Your task to perform on an android device: Go to calendar. Show me events next week Image 0: 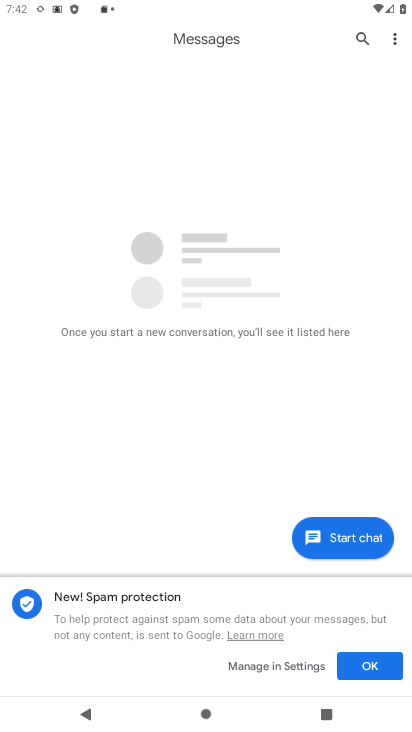
Step 0: press home button
Your task to perform on an android device: Go to calendar. Show me events next week Image 1: 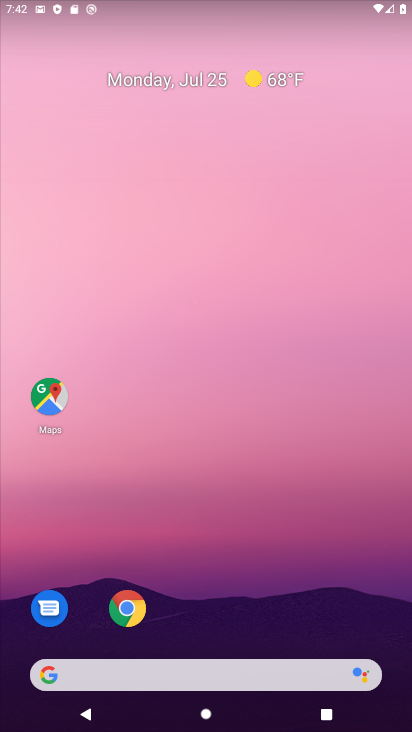
Step 1: drag from (219, 645) to (213, 1)
Your task to perform on an android device: Go to calendar. Show me events next week Image 2: 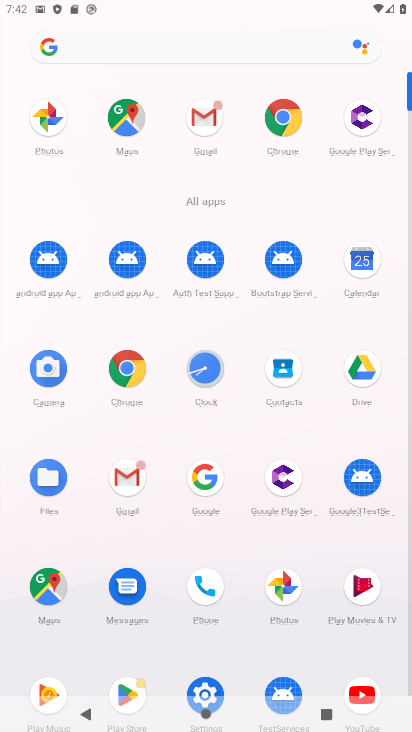
Step 2: click (353, 262)
Your task to perform on an android device: Go to calendar. Show me events next week Image 3: 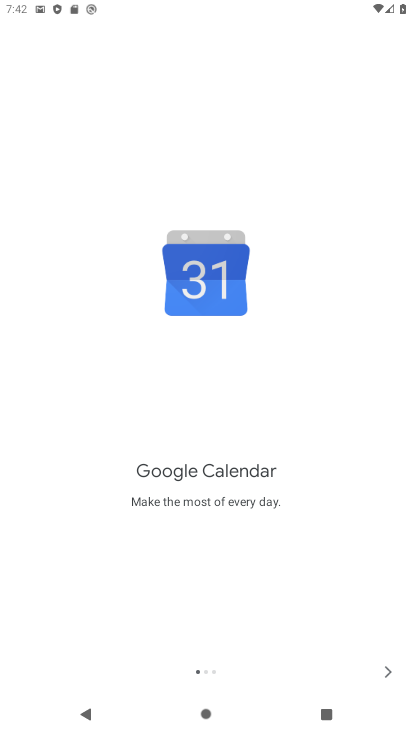
Step 3: click (393, 681)
Your task to perform on an android device: Go to calendar. Show me events next week Image 4: 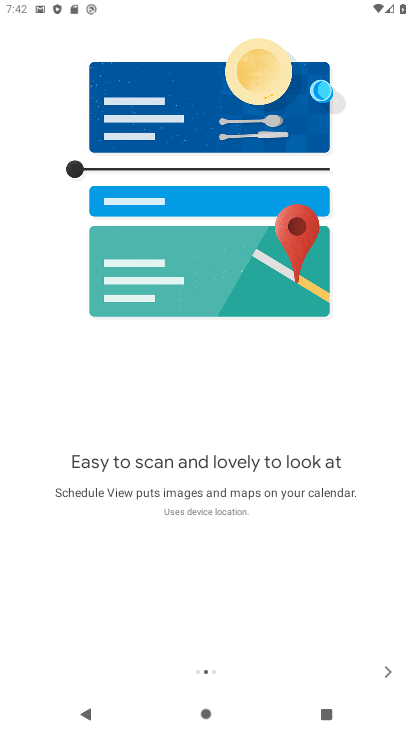
Step 4: click (393, 681)
Your task to perform on an android device: Go to calendar. Show me events next week Image 5: 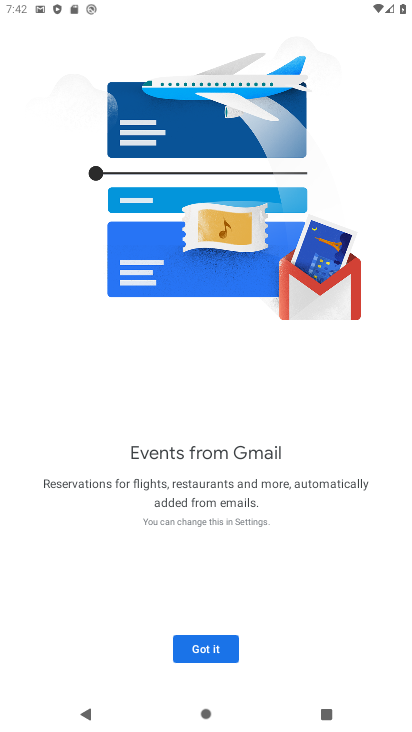
Step 5: click (201, 654)
Your task to perform on an android device: Go to calendar. Show me events next week Image 6: 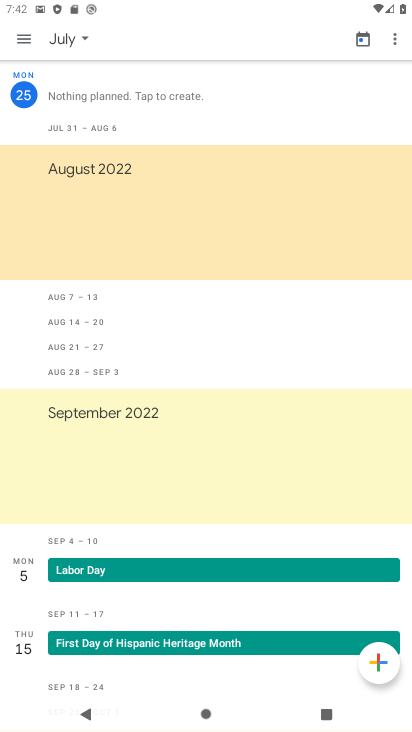
Step 6: click (18, 46)
Your task to perform on an android device: Go to calendar. Show me events next week Image 7: 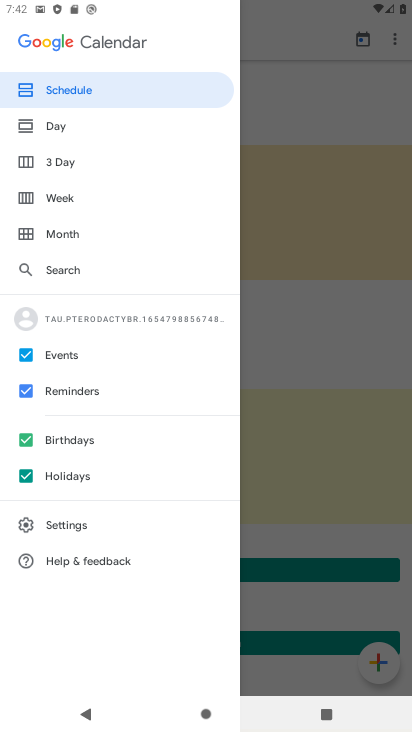
Step 7: click (42, 194)
Your task to perform on an android device: Go to calendar. Show me events next week Image 8: 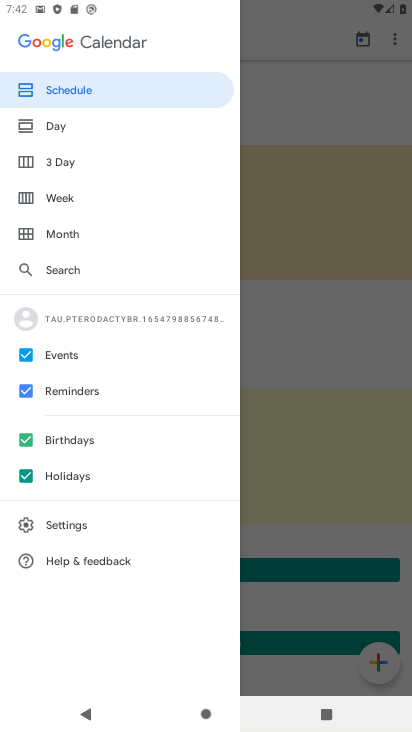
Step 8: click (25, 196)
Your task to perform on an android device: Go to calendar. Show me events next week Image 9: 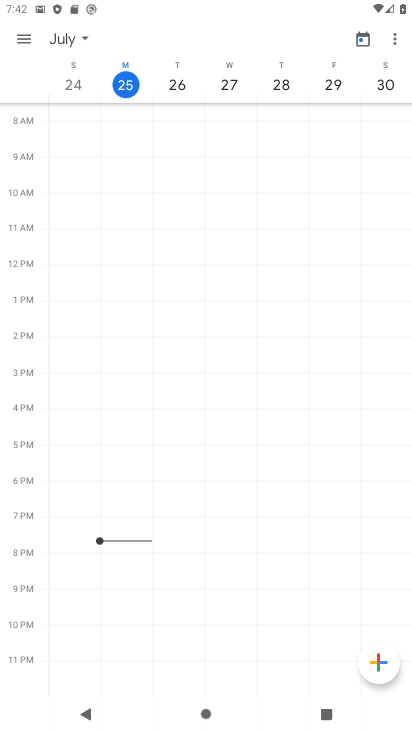
Step 9: drag from (350, 355) to (11, 437)
Your task to perform on an android device: Go to calendar. Show me events next week Image 10: 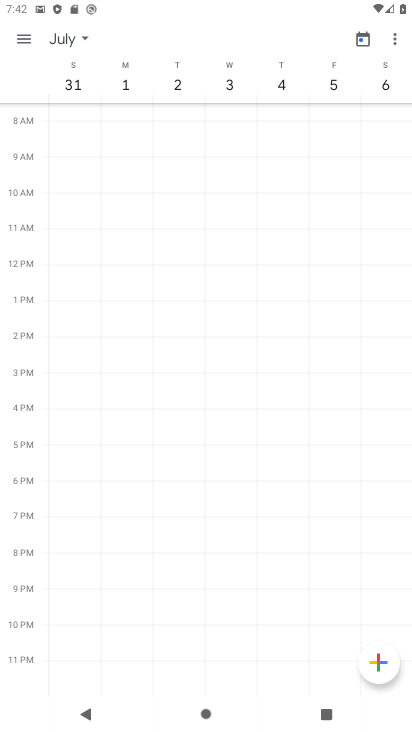
Step 10: drag from (311, 580) to (274, 314)
Your task to perform on an android device: Go to calendar. Show me events next week Image 11: 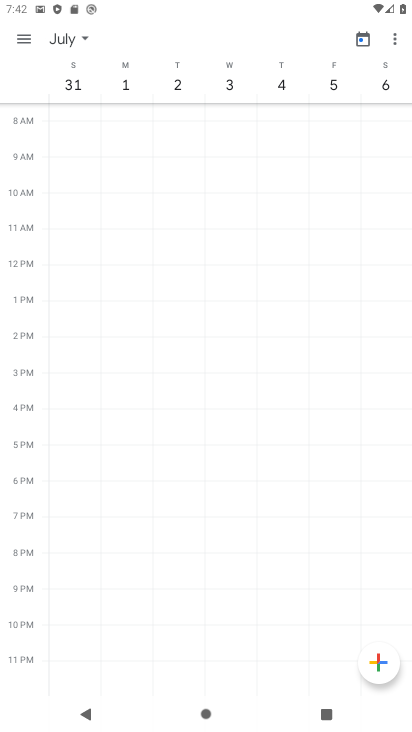
Step 11: click (15, 41)
Your task to perform on an android device: Go to calendar. Show me events next week Image 12: 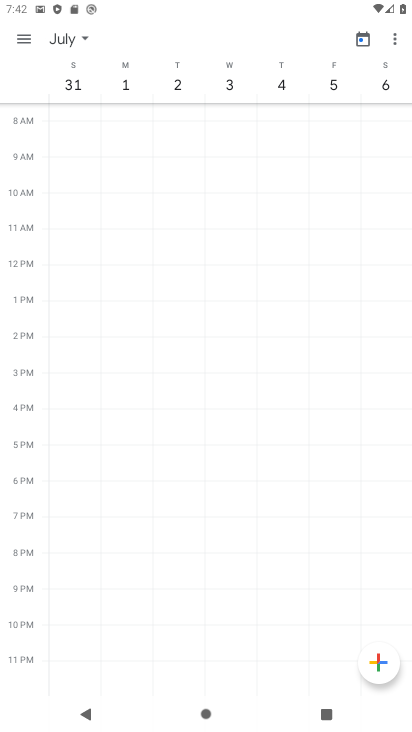
Step 12: click (18, 45)
Your task to perform on an android device: Go to calendar. Show me events next week Image 13: 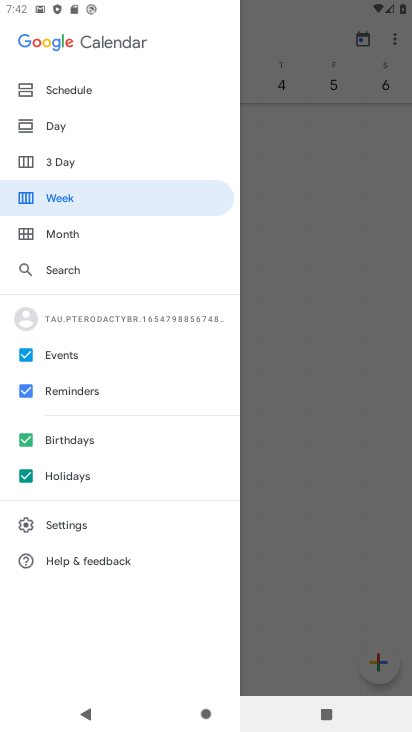
Step 13: click (35, 479)
Your task to perform on an android device: Go to calendar. Show me events next week Image 14: 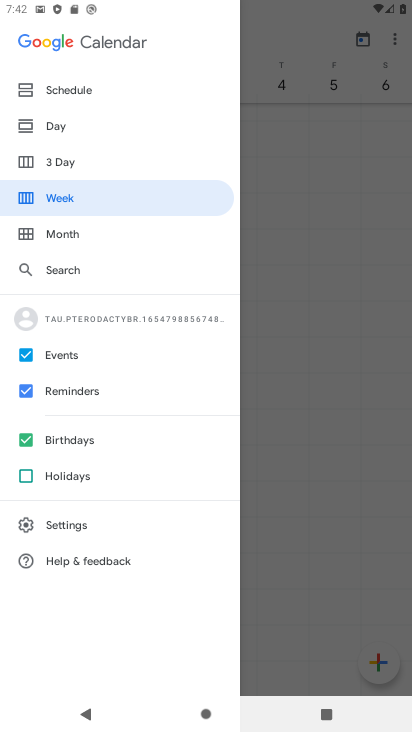
Step 14: click (23, 433)
Your task to perform on an android device: Go to calendar. Show me events next week Image 15: 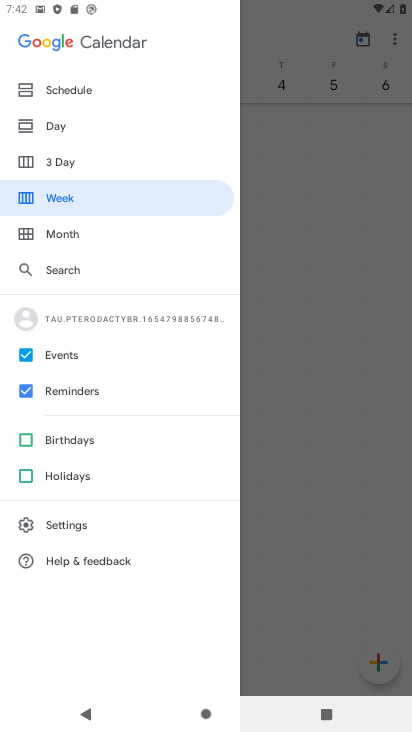
Step 15: click (26, 392)
Your task to perform on an android device: Go to calendar. Show me events next week Image 16: 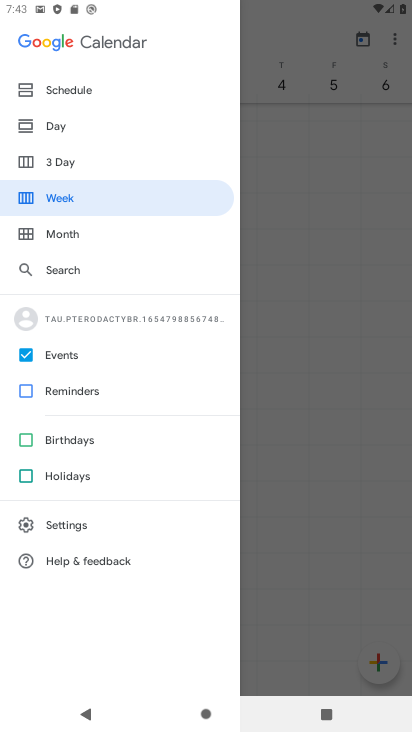
Step 16: click (17, 207)
Your task to perform on an android device: Go to calendar. Show me events next week Image 17: 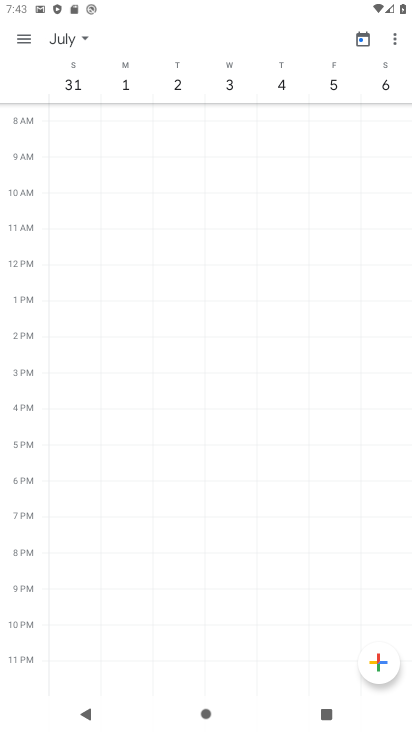
Step 17: task complete